Your task to perform on an android device: Do I have any events this weekend? Image 0: 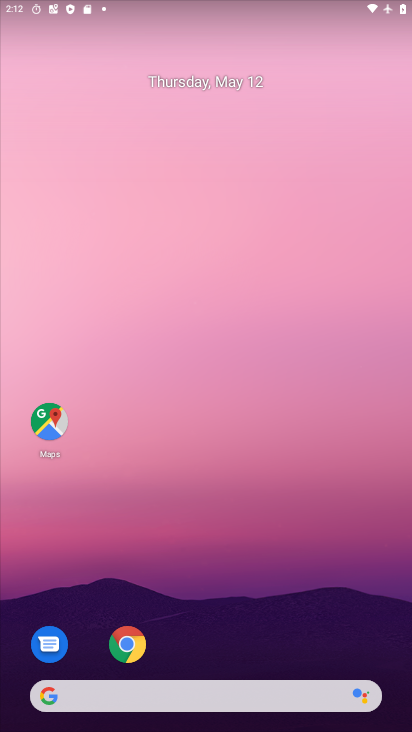
Step 0: drag from (275, 495) to (199, 65)
Your task to perform on an android device: Do I have any events this weekend? Image 1: 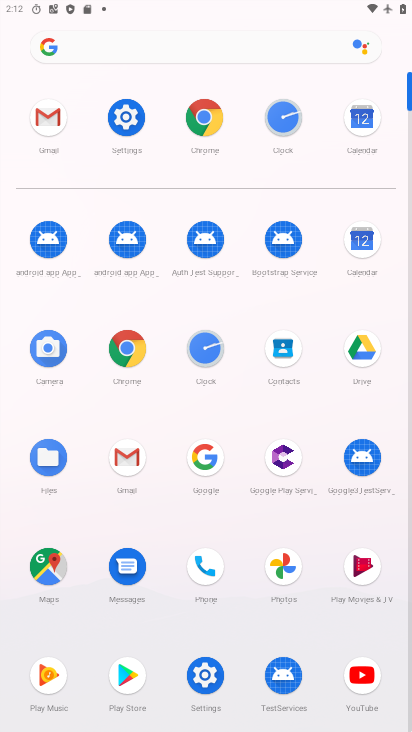
Step 1: click (359, 247)
Your task to perform on an android device: Do I have any events this weekend? Image 2: 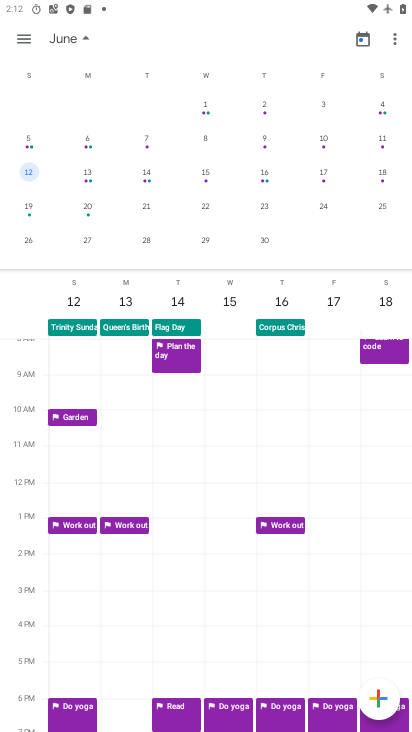
Step 2: click (80, 35)
Your task to perform on an android device: Do I have any events this weekend? Image 3: 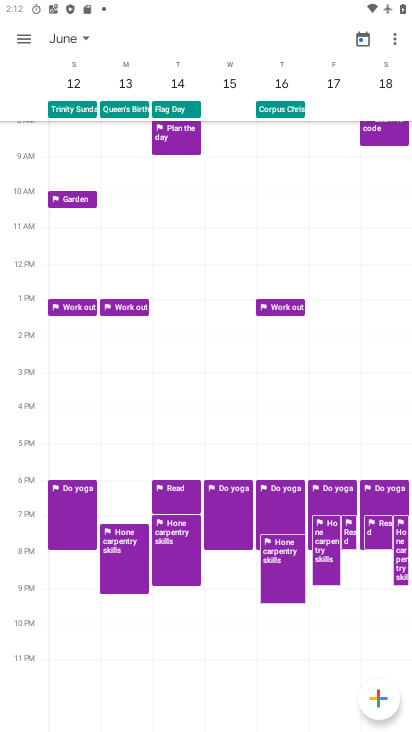
Step 3: click (76, 37)
Your task to perform on an android device: Do I have any events this weekend? Image 4: 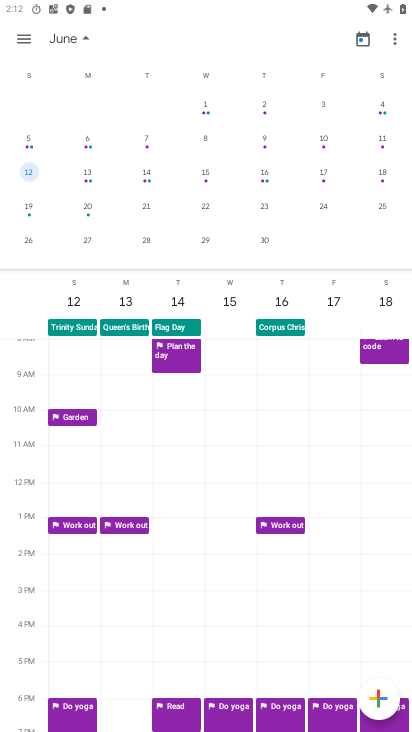
Step 4: drag from (61, 176) to (387, 154)
Your task to perform on an android device: Do I have any events this weekend? Image 5: 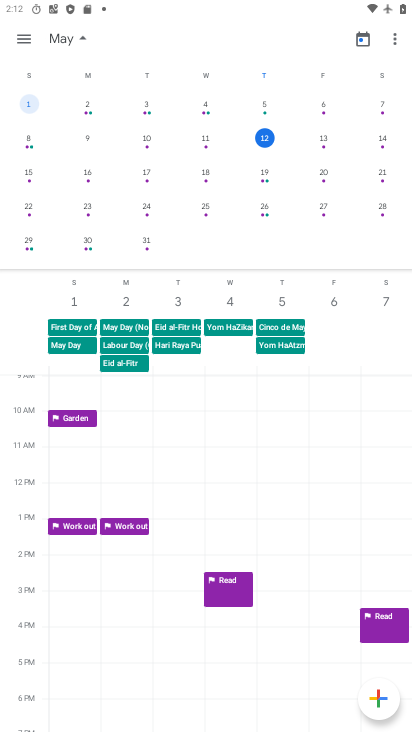
Step 5: click (34, 145)
Your task to perform on an android device: Do I have any events this weekend? Image 6: 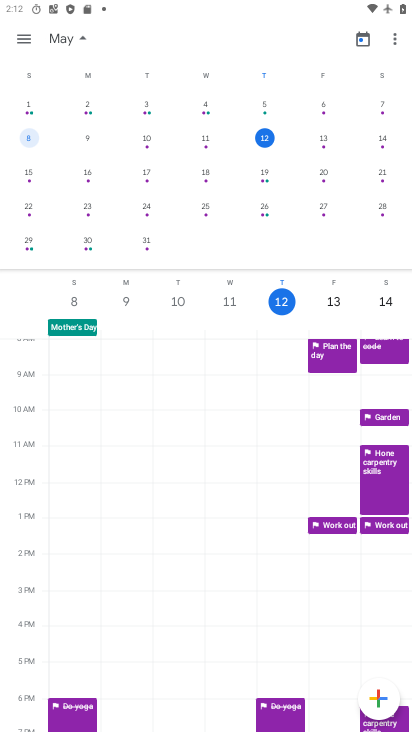
Step 6: task complete